Your task to perform on an android device: Search for Mexican restaurants on Maps Image 0: 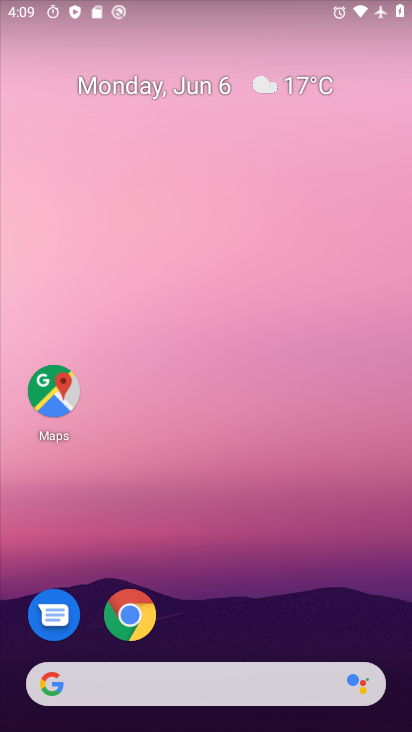
Step 0: drag from (250, 538) to (180, 32)
Your task to perform on an android device: Search for Mexican restaurants on Maps Image 1: 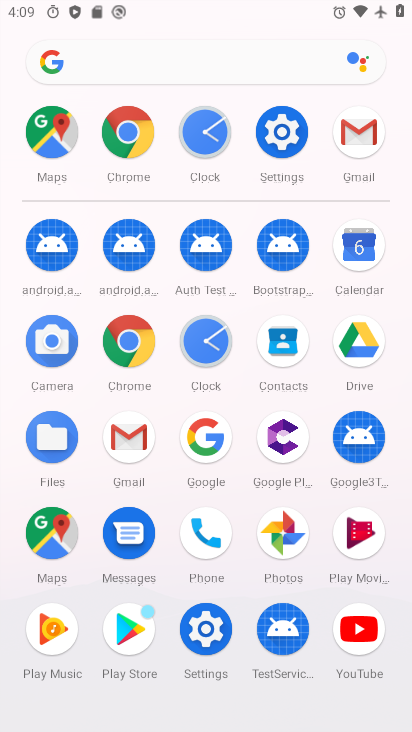
Step 1: drag from (9, 584) to (14, 231)
Your task to perform on an android device: Search for Mexican restaurants on Maps Image 2: 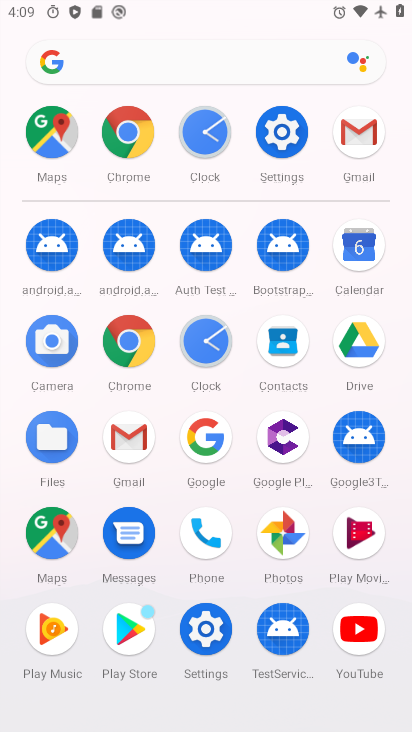
Step 2: click (54, 531)
Your task to perform on an android device: Search for Mexican restaurants on Maps Image 3: 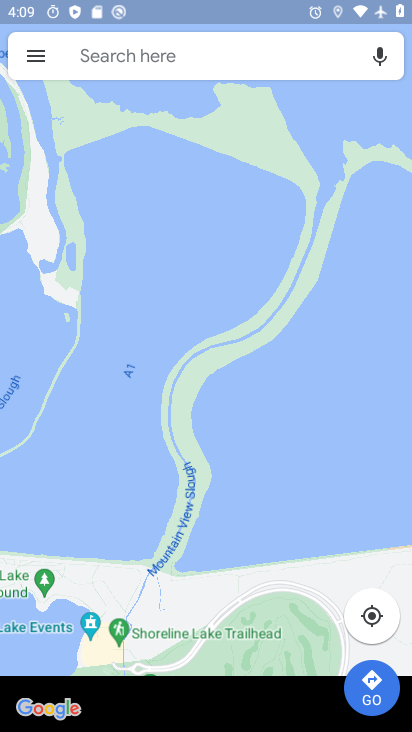
Step 3: click (201, 57)
Your task to perform on an android device: Search for Mexican restaurants on Maps Image 4: 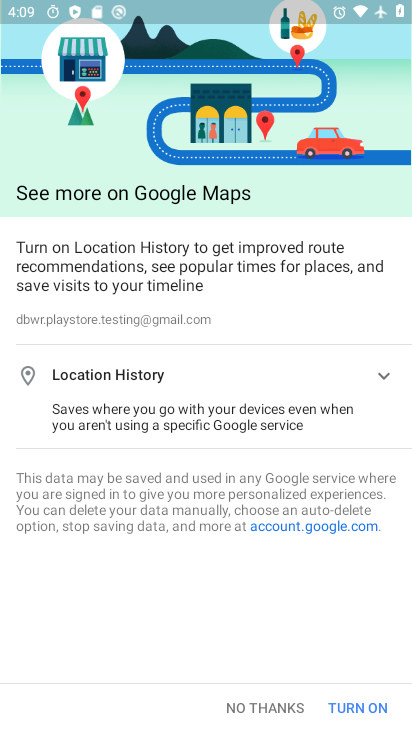
Step 4: click (349, 705)
Your task to perform on an android device: Search for Mexican restaurants on Maps Image 5: 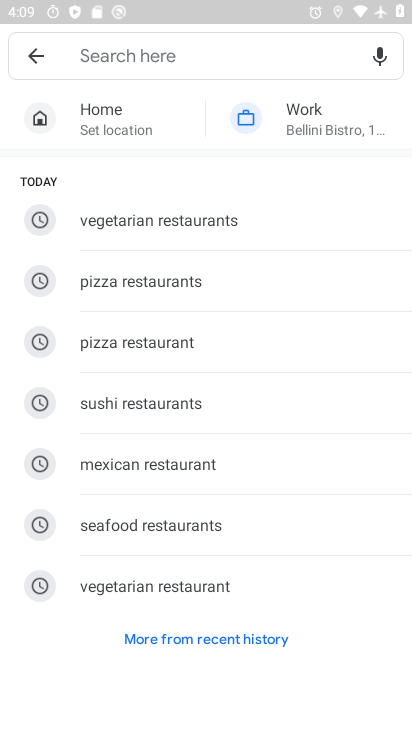
Step 5: click (153, 470)
Your task to perform on an android device: Search for Mexican restaurants on Maps Image 6: 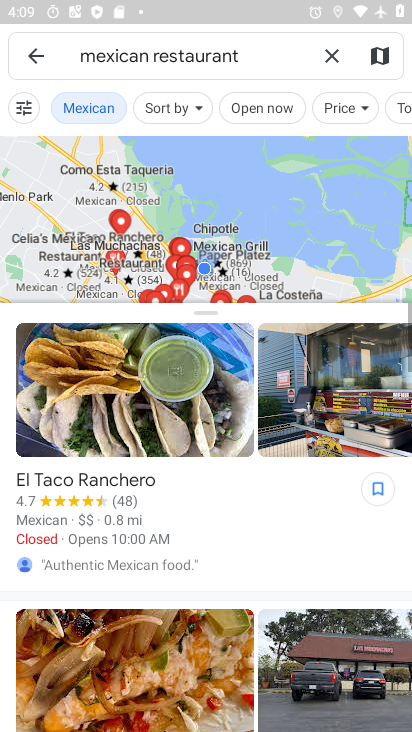
Step 6: task complete